Your task to perform on an android device: toggle priority inbox in the gmail app Image 0: 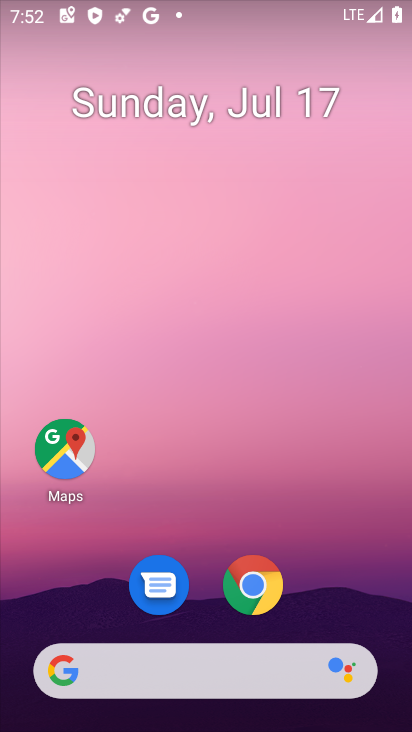
Step 0: drag from (332, 576) to (289, 37)
Your task to perform on an android device: toggle priority inbox in the gmail app Image 1: 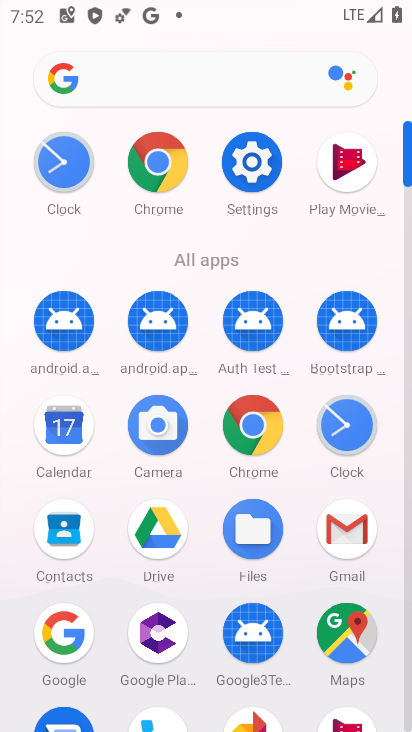
Step 1: click (345, 533)
Your task to perform on an android device: toggle priority inbox in the gmail app Image 2: 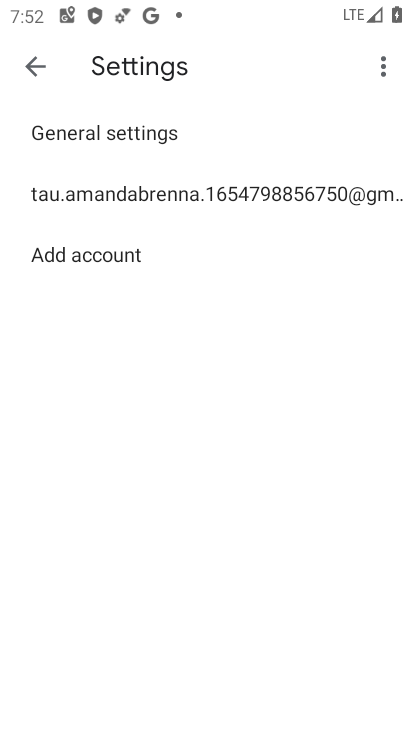
Step 2: click (244, 183)
Your task to perform on an android device: toggle priority inbox in the gmail app Image 3: 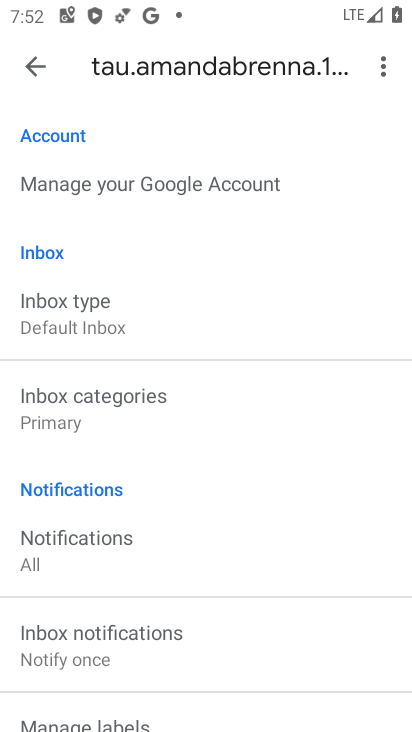
Step 3: click (99, 327)
Your task to perform on an android device: toggle priority inbox in the gmail app Image 4: 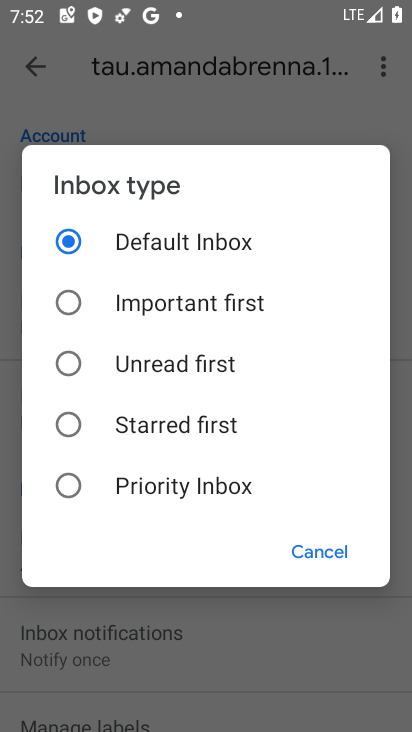
Step 4: click (74, 487)
Your task to perform on an android device: toggle priority inbox in the gmail app Image 5: 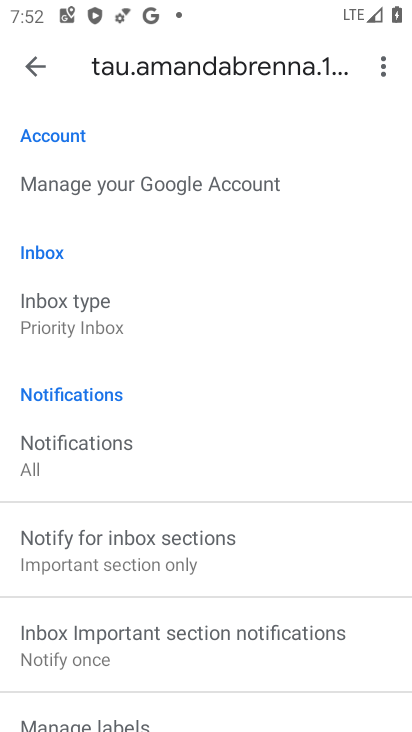
Step 5: task complete